Your task to perform on an android device: Open the calendar and show me this week's events Image 0: 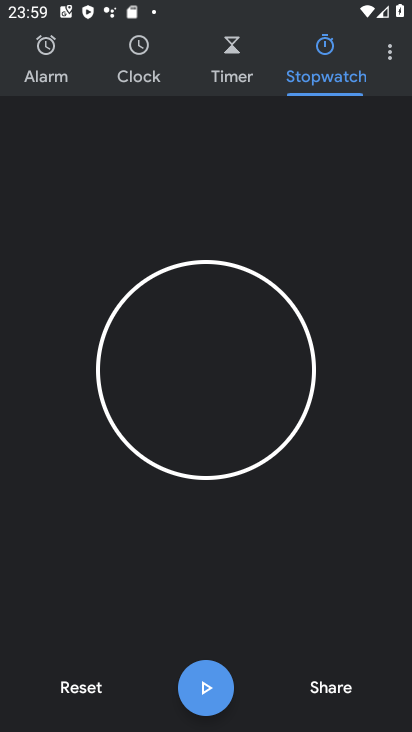
Step 0: press home button
Your task to perform on an android device: Open the calendar and show me this week's events Image 1: 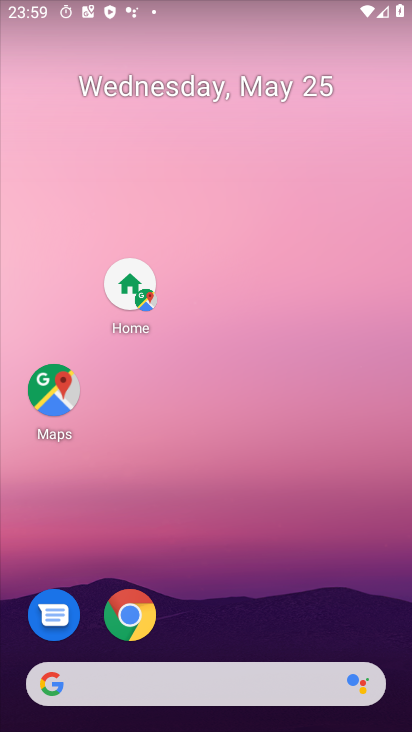
Step 1: drag from (307, 626) to (267, 120)
Your task to perform on an android device: Open the calendar and show me this week's events Image 2: 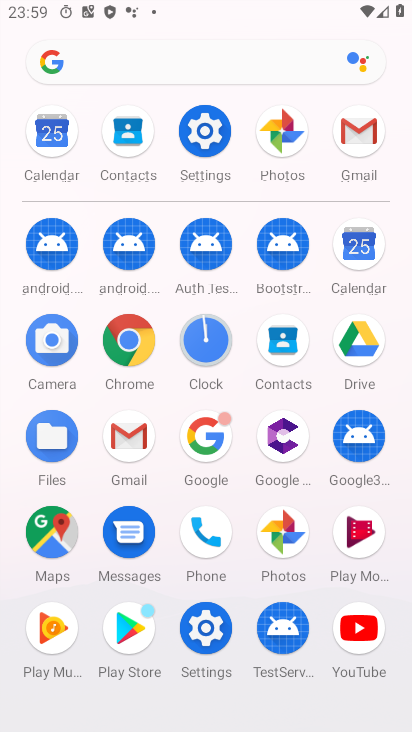
Step 2: click (40, 146)
Your task to perform on an android device: Open the calendar and show me this week's events Image 3: 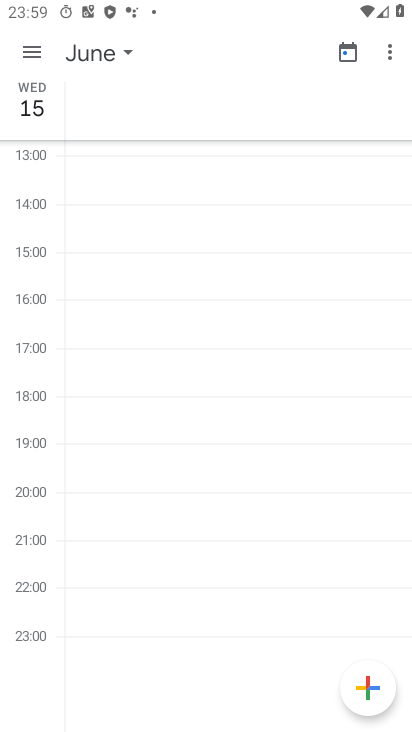
Step 3: click (31, 51)
Your task to perform on an android device: Open the calendar and show me this week's events Image 4: 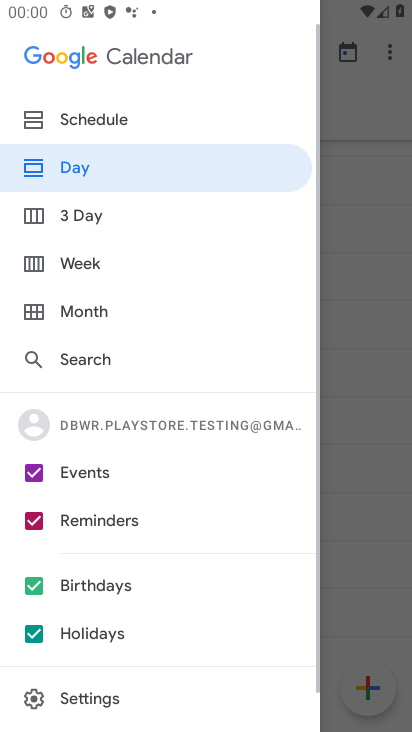
Step 4: click (85, 123)
Your task to perform on an android device: Open the calendar and show me this week's events Image 5: 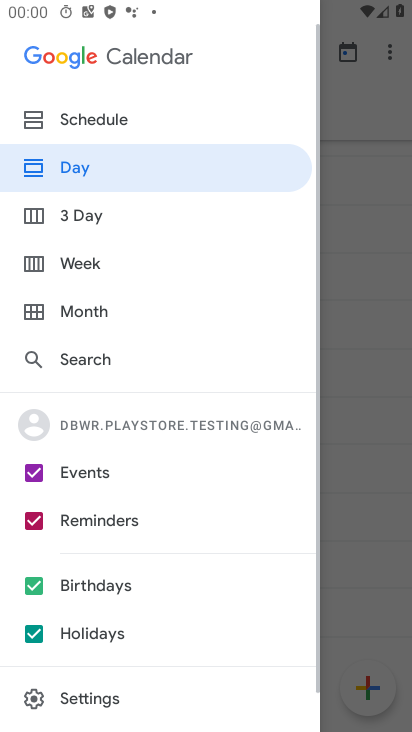
Step 5: click (91, 122)
Your task to perform on an android device: Open the calendar and show me this week's events Image 6: 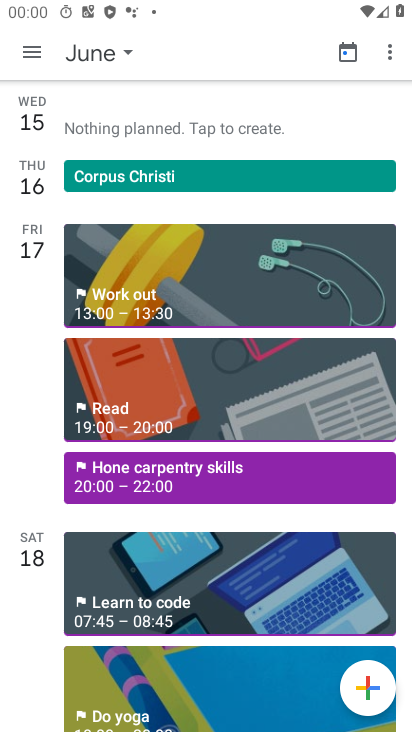
Step 6: click (129, 53)
Your task to perform on an android device: Open the calendar and show me this week's events Image 7: 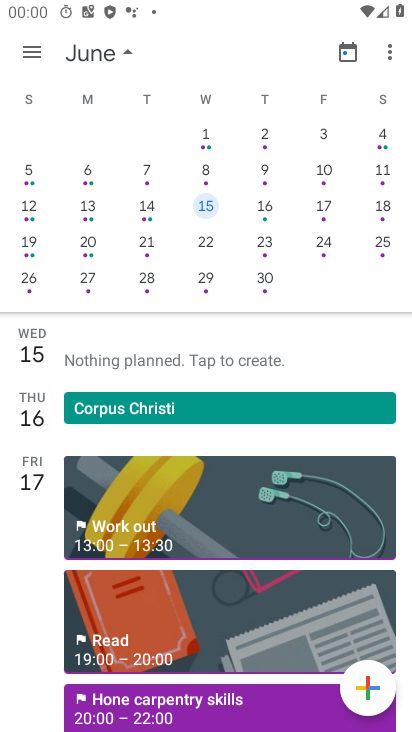
Step 7: drag from (27, 151) to (376, 151)
Your task to perform on an android device: Open the calendar and show me this week's events Image 8: 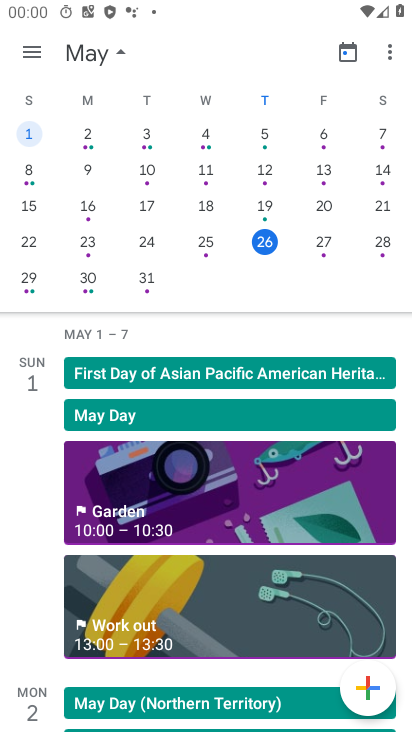
Step 8: click (34, 419)
Your task to perform on an android device: Open the calendar and show me this week's events Image 9: 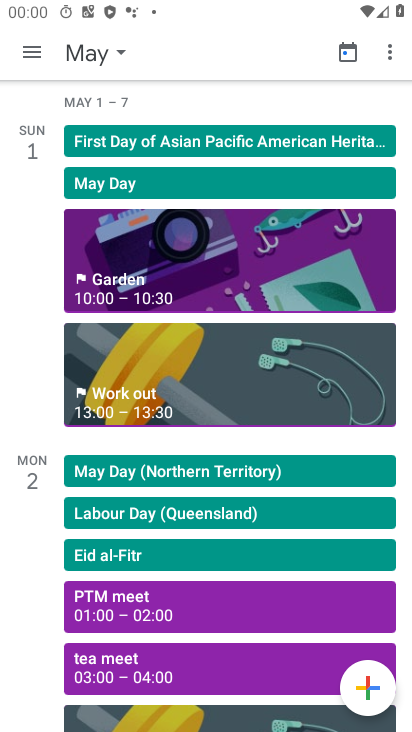
Step 9: task complete